Your task to perform on an android device: Go to Maps Image 0: 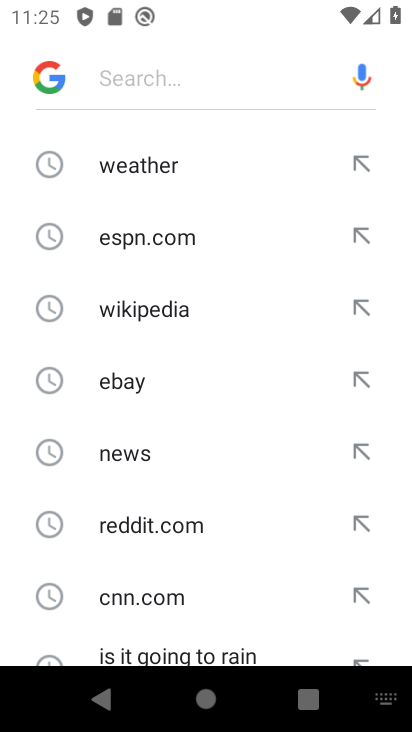
Step 0: press back button
Your task to perform on an android device: Go to Maps Image 1: 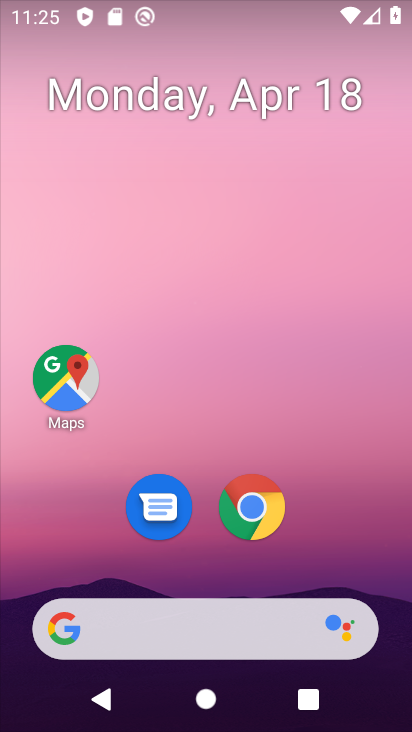
Step 1: click (91, 390)
Your task to perform on an android device: Go to Maps Image 2: 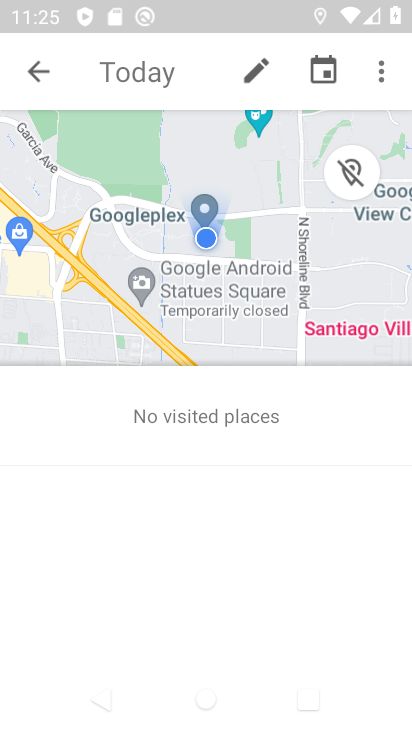
Step 2: task complete